Your task to perform on an android device: Go to Amazon Image 0: 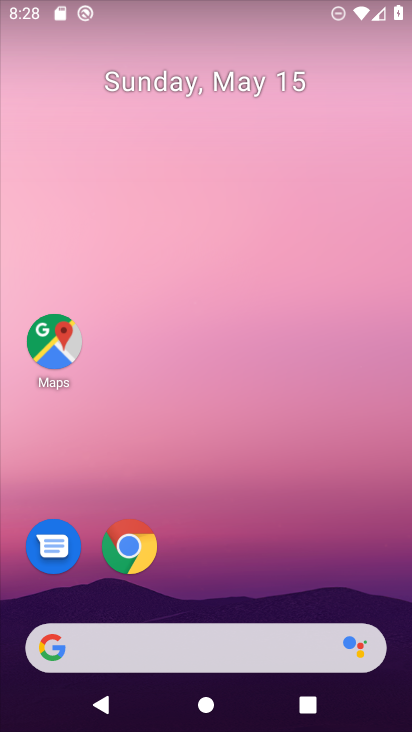
Step 0: click (133, 549)
Your task to perform on an android device: Go to Amazon Image 1: 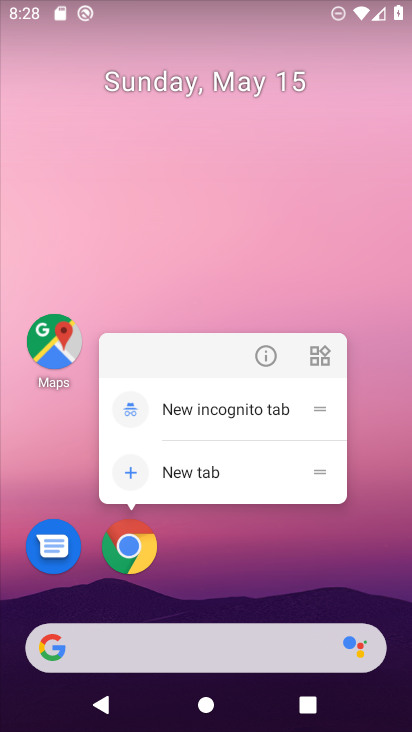
Step 1: click (133, 549)
Your task to perform on an android device: Go to Amazon Image 2: 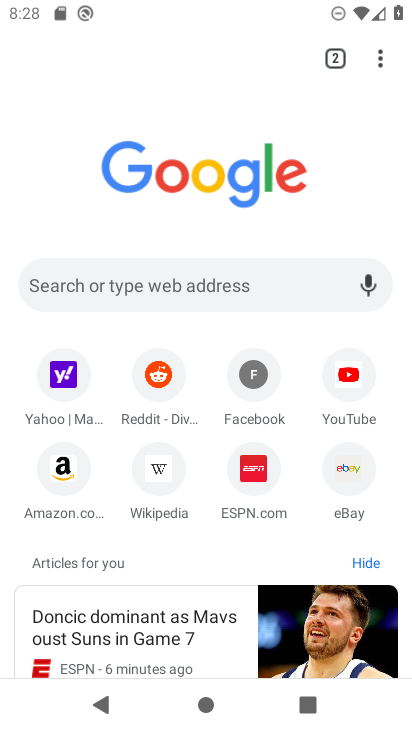
Step 2: click (69, 451)
Your task to perform on an android device: Go to Amazon Image 3: 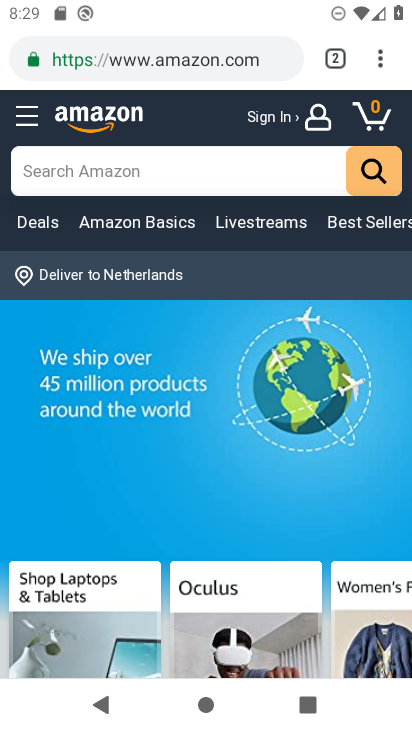
Step 3: task complete